Your task to perform on an android device: uninstall "DoorDash - Food Delivery" Image 0: 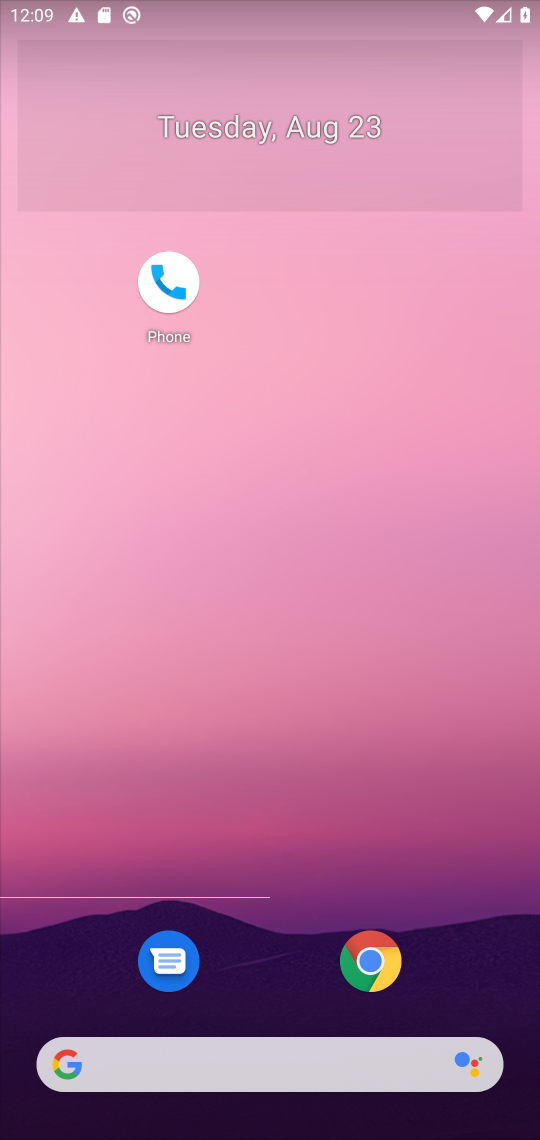
Step 0: drag from (300, 1017) to (298, 138)
Your task to perform on an android device: uninstall "DoorDash - Food Delivery" Image 1: 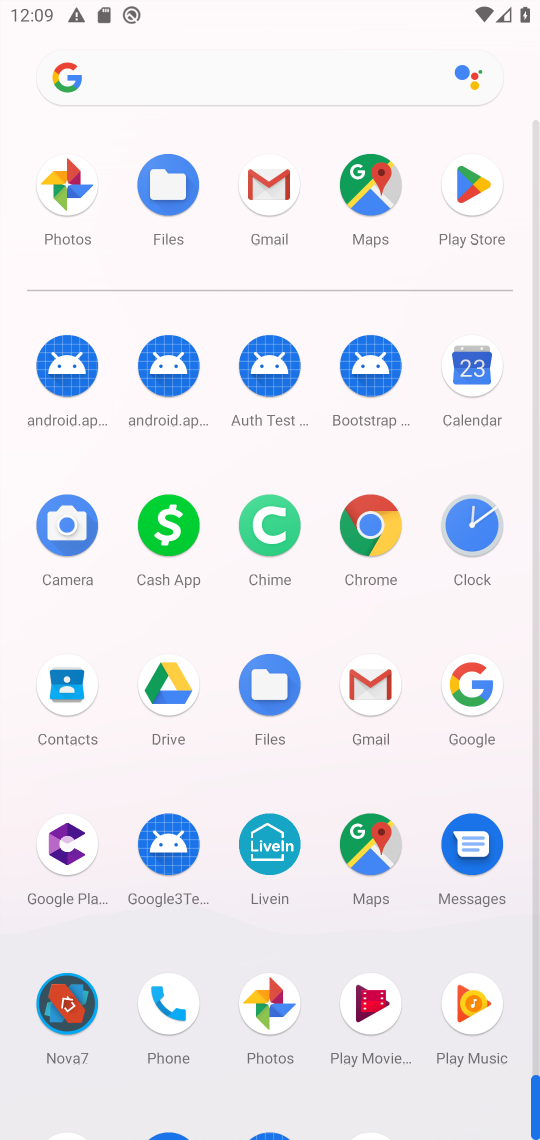
Step 1: click (461, 218)
Your task to perform on an android device: uninstall "DoorDash - Food Delivery" Image 2: 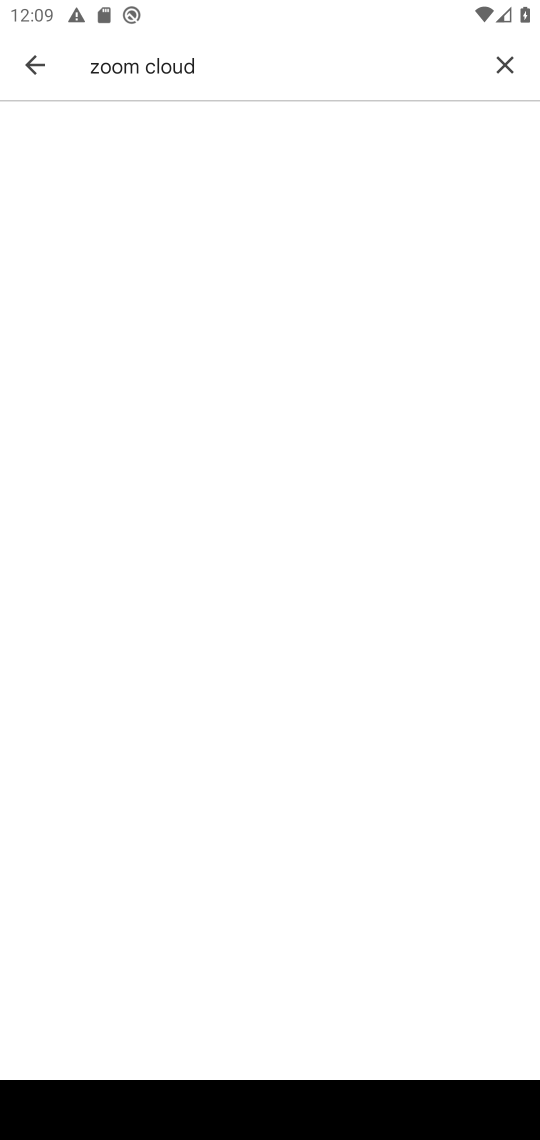
Step 2: click (489, 60)
Your task to perform on an android device: uninstall "DoorDash - Food Delivery" Image 3: 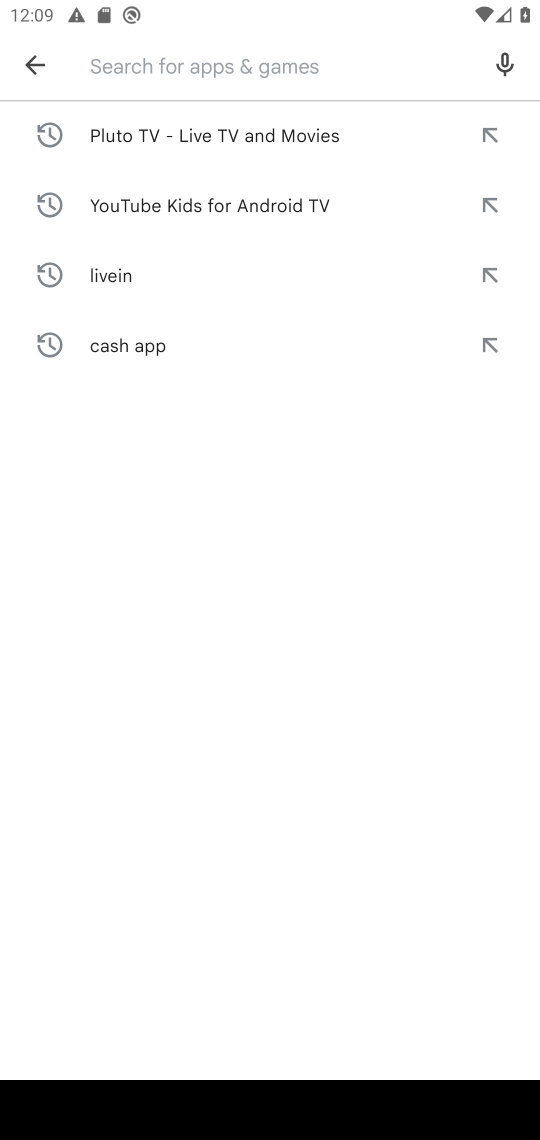
Step 3: type "door dash"
Your task to perform on an android device: uninstall "DoorDash - Food Delivery" Image 4: 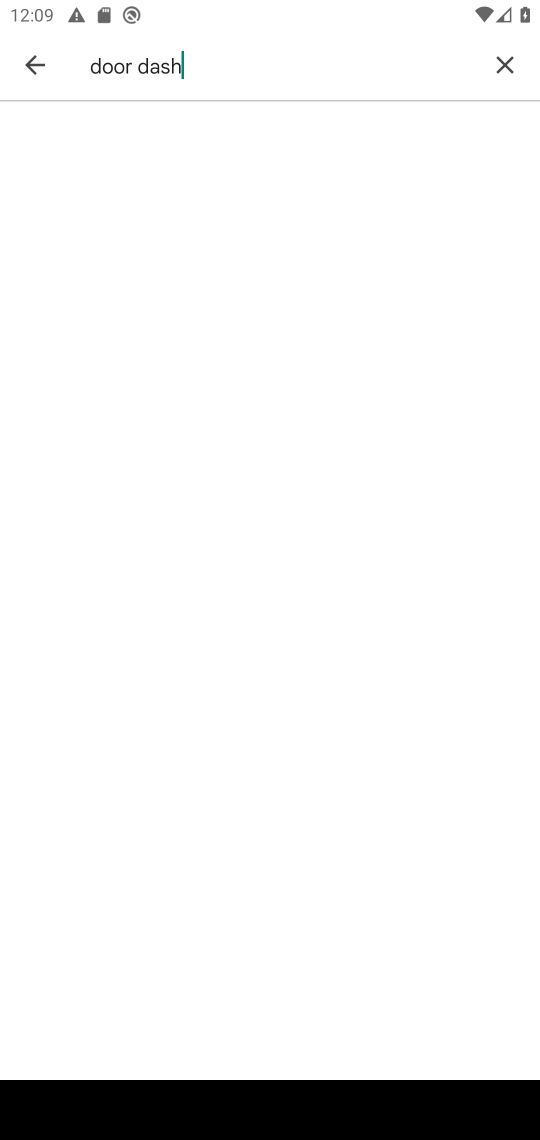
Step 4: task complete